Your task to perform on an android device: open the mobile data screen to see how much data has been used Image 0: 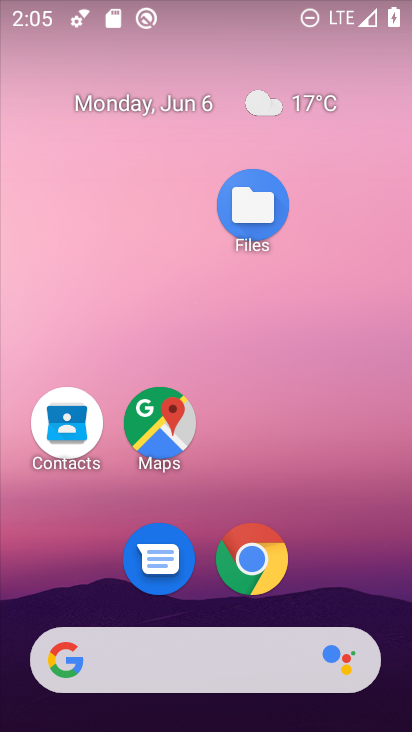
Step 0: drag from (238, 652) to (257, 205)
Your task to perform on an android device: open the mobile data screen to see how much data has been used Image 1: 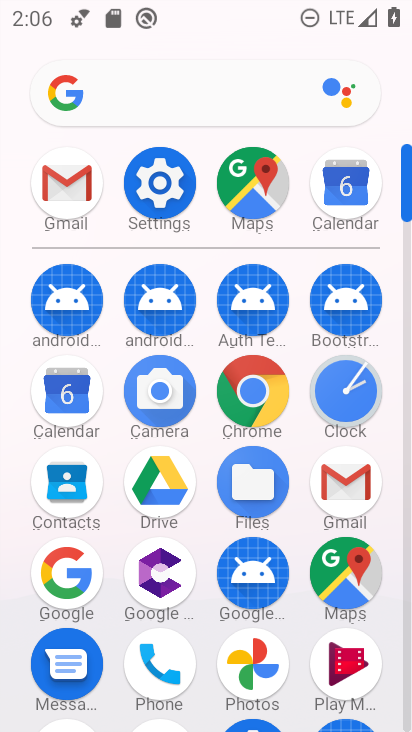
Step 1: click (171, 179)
Your task to perform on an android device: open the mobile data screen to see how much data has been used Image 2: 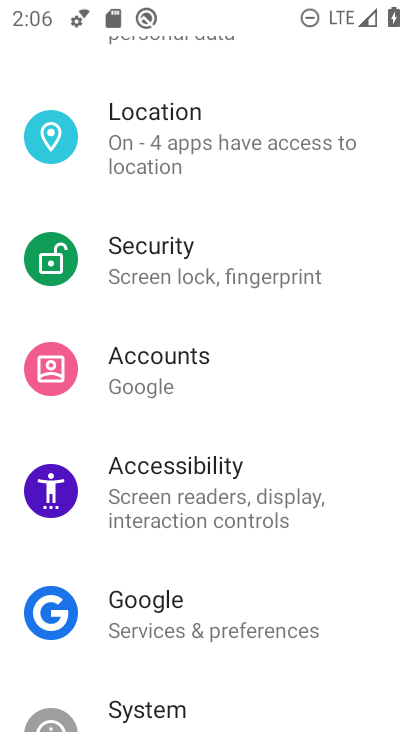
Step 2: drag from (206, 338) to (203, 518)
Your task to perform on an android device: open the mobile data screen to see how much data has been used Image 3: 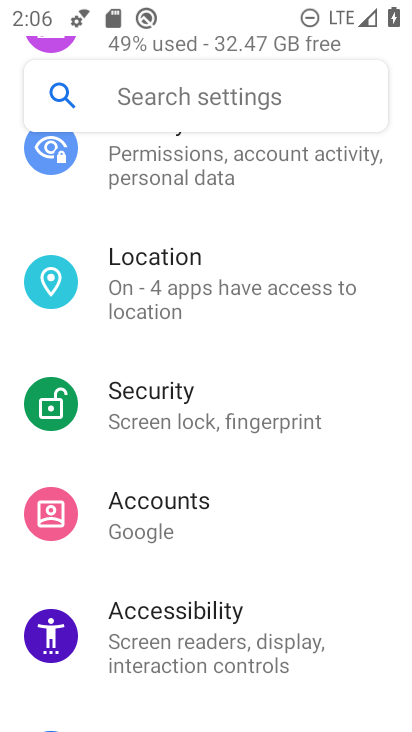
Step 3: drag from (219, 340) to (213, 598)
Your task to perform on an android device: open the mobile data screen to see how much data has been used Image 4: 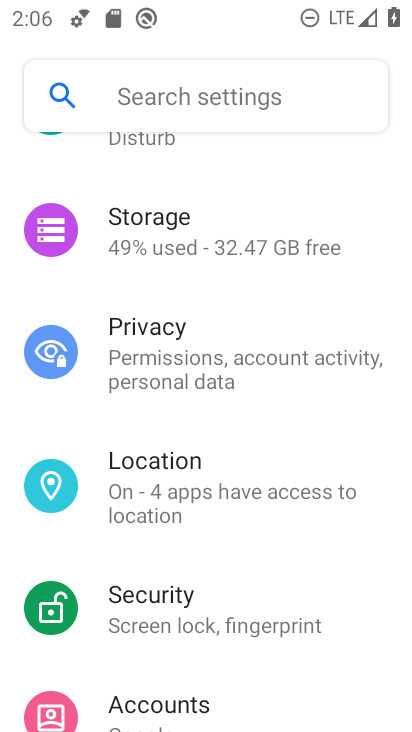
Step 4: drag from (231, 367) to (230, 581)
Your task to perform on an android device: open the mobile data screen to see how much data has been used Image 5: 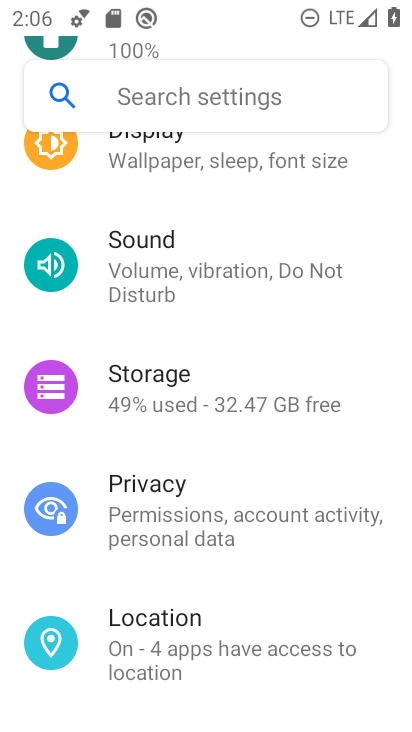
Step 5: drag from (223, 331) to (215, 602)
Your task to perform on an android device: open the mobile data screen to see how much data has been used Image 6: 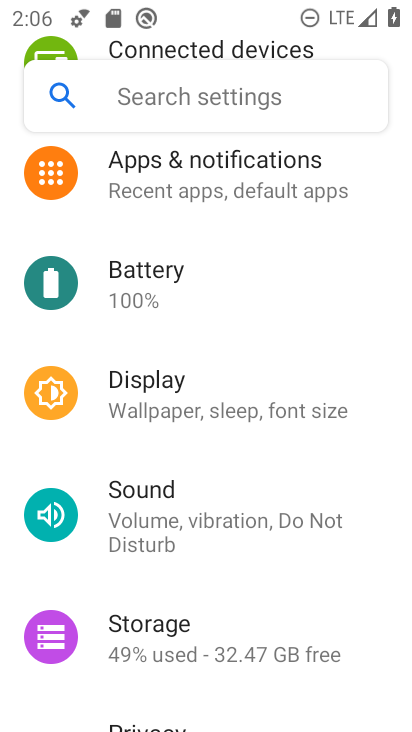
Step 6: drag from (204, 365) to (183, 673)
Your task to perform on an android device: open the mobile data screen to see how much data has been used Image 7: 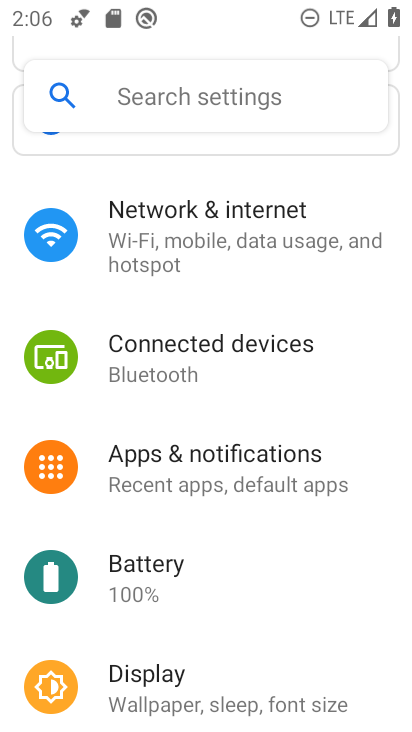
Step 7: click (258, 215)
Your task to perform on an android device: open the mobile data screen to see how much data has been used Image 8: 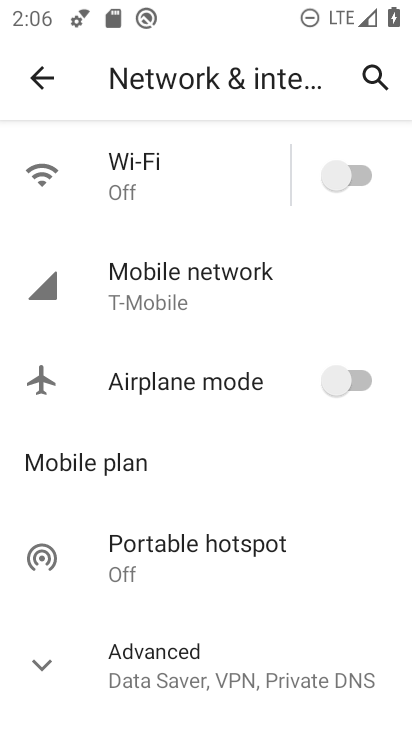
Step 8: click (229, 284)
Your task to perform on an android device: open the mobile data screen to see how much data has been used Image 9: 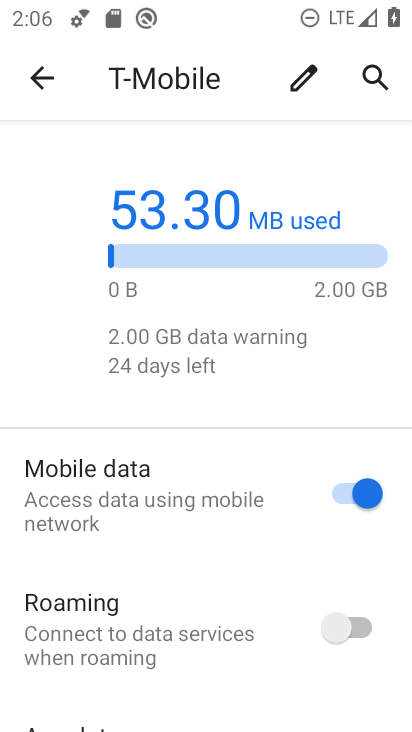
Step 9: drag from (172, 544) to (218, 214)
Your task to perform on an android device: open the mobile data screen to see how much data has been used Image 10: 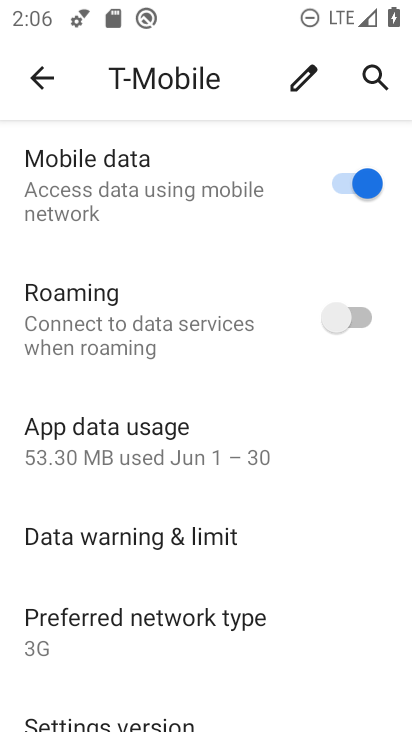
Step 10: click (191, 451)
Your task to perform on an android device: open the mobile data screen to see how much data has been used Image 11: 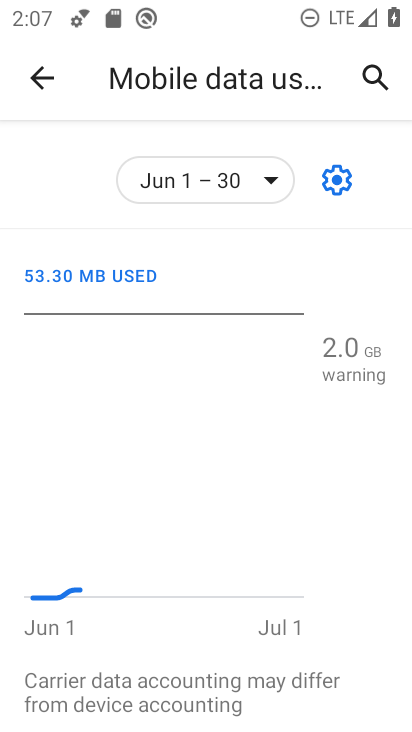
Step 11: task complete